Your task to perform on an android device: delete the emails in spam in the gmail app Image 0: 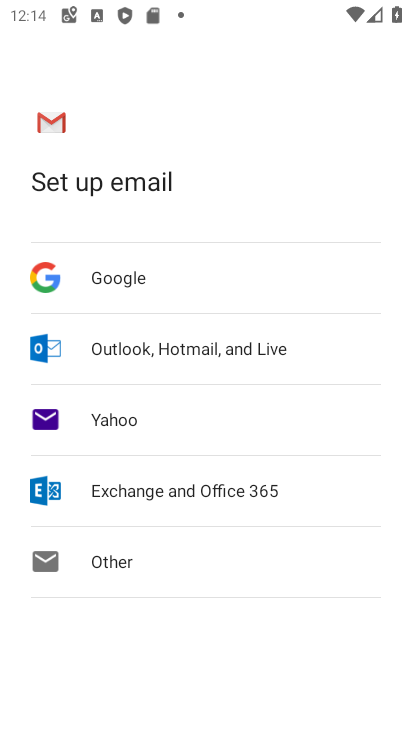
Step 0: press home button
Your task to perform on an android device: delete the emails in spam in the gmail app Image 1: 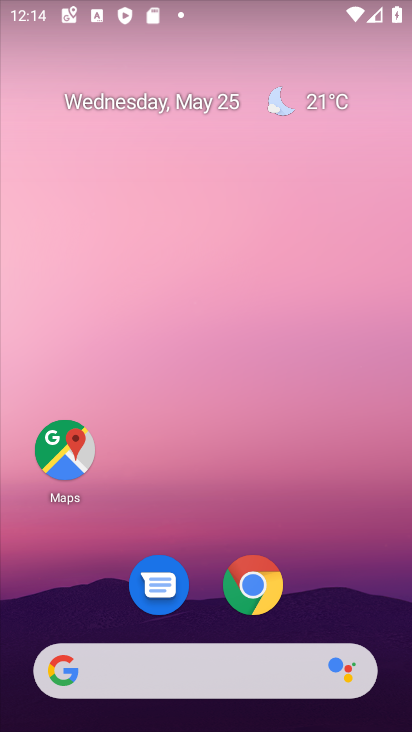
Step 1: drag from (241, 381) to (290, 36)
Your task to perform on an android device: delete the emails in spam in the gmail app Image 2: 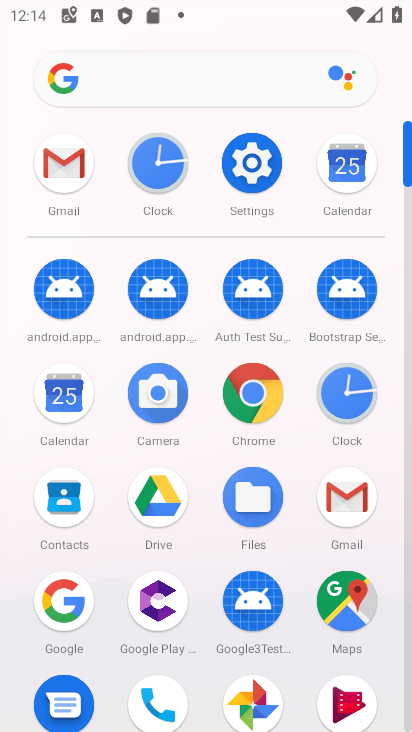
Step 2: click (66, 166)
Your task to perform on an android device: delete the emails in spam in the gmail app Image 3: 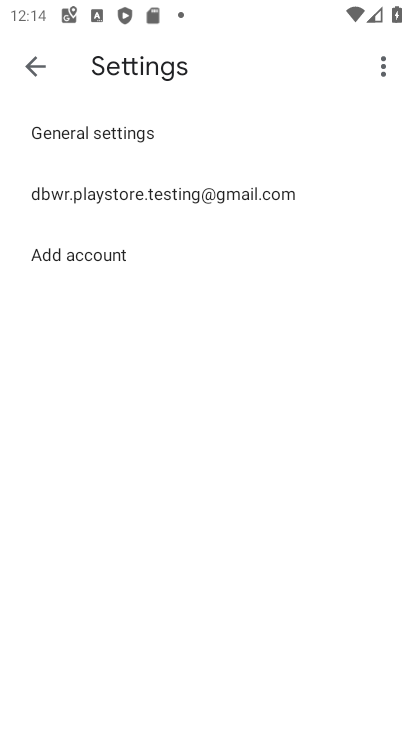
Step 3: click (37, 70)
Your task to perform on an android device: delete the emails in spam in the gmail app Image 4: 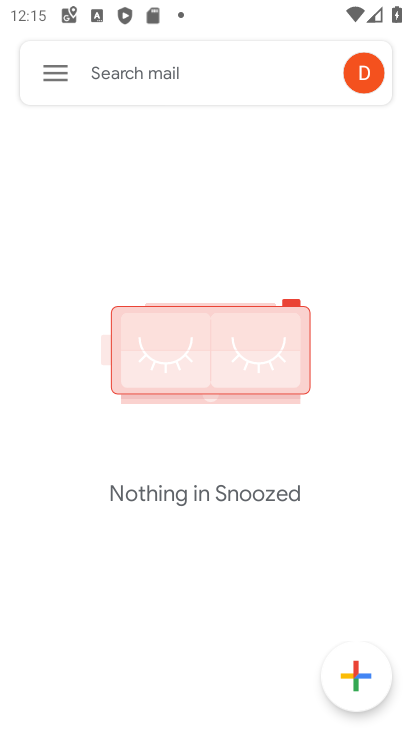
Step 4: click (44, 68)
Your task to perform on an android device: delete the emails in spam in the gmail app Image 5: 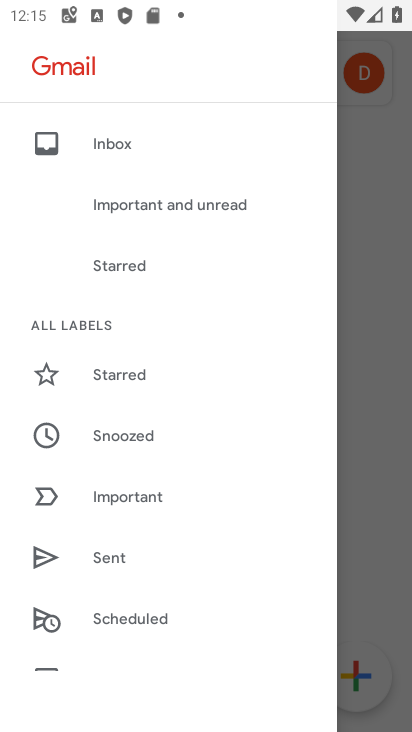
Step 5: drag from (154, 568) to (234, 181)
Your task to perform on an android device: delete the emails in spam in the gmail app Image 6: 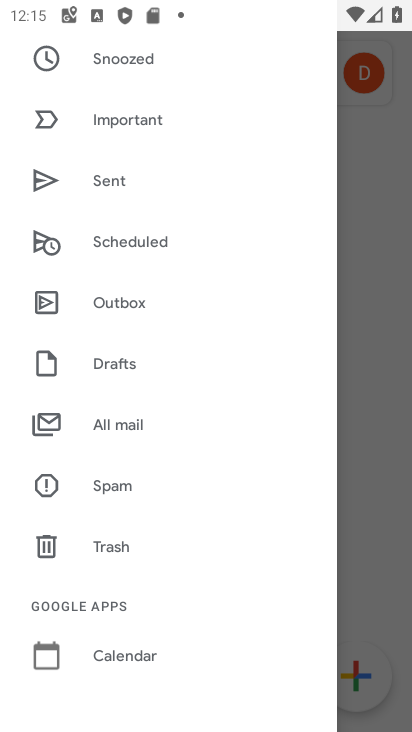
Step 6: click (136, 483)
Your task to perform on an android device: delete the emails in spam in the gmail app Image 7: 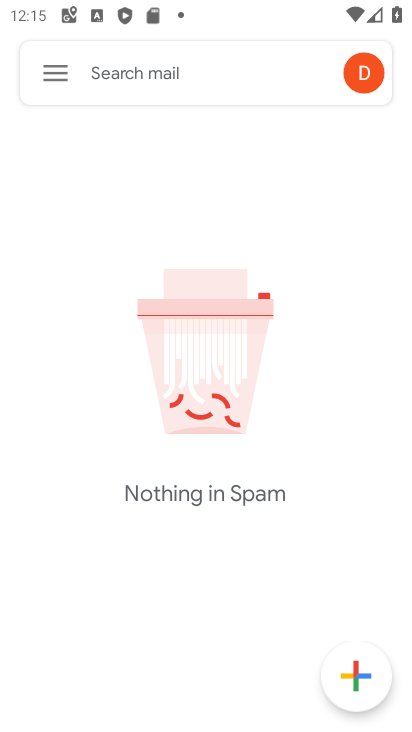
Step 7: task complete